Your task to perform on an android device: remove spam from my inbox in the gmail app Image 0: 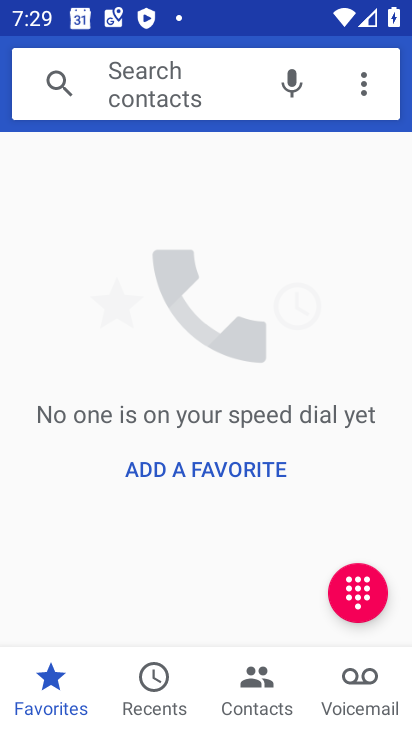
Step 0: press home button
Your task to perform on an android device: remove spam from my inbox in the gmail app Image 1: 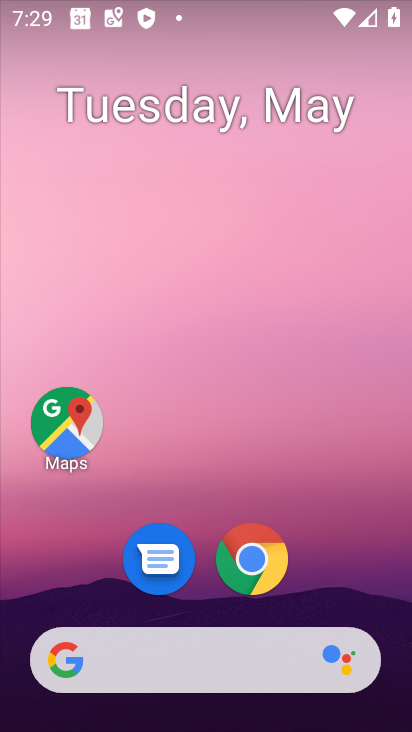
Step 1: drag from (394, 643) to (244, 71)
Your task to perform on an android device: remove spam from my inbox in the gmail app Image 2: 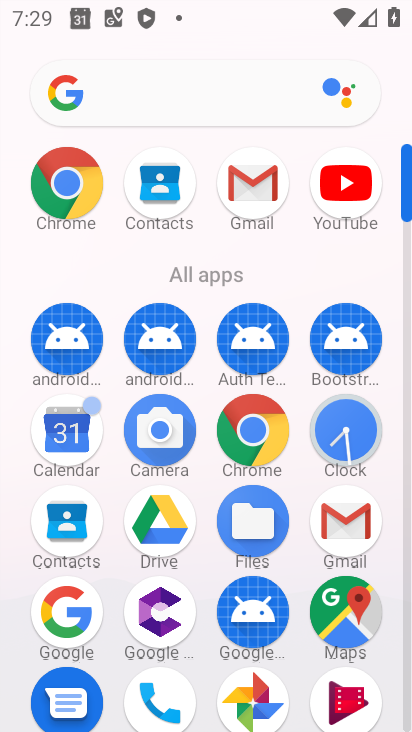
Step 2: click (338, 552)
Your task to perform on an android device: remove spam from my inbox in the gmail app Image 3: 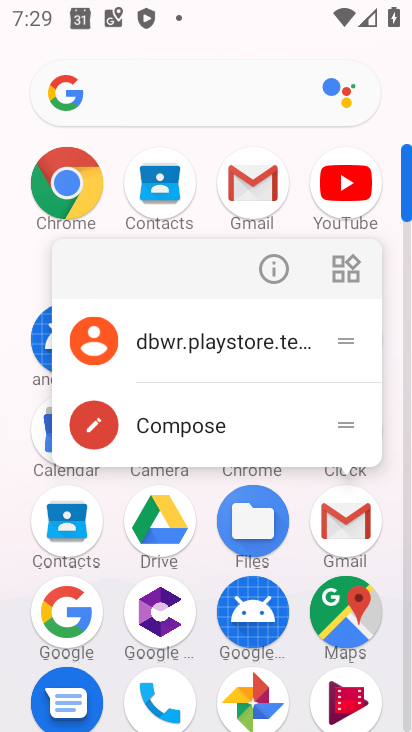
Step 3: click (341, 523)
Your task to perform on an android device: remove spam from my inbox in the gmail app Image 4: 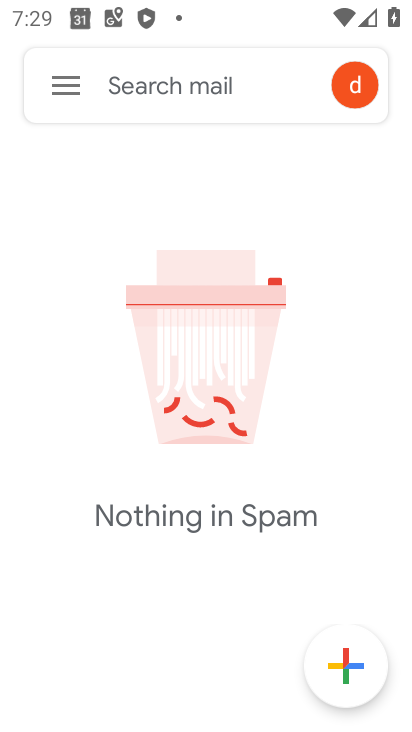
Step 4: task complete